Your task to perform on an android device: turn vacation reply on in the gmail app Image 0: 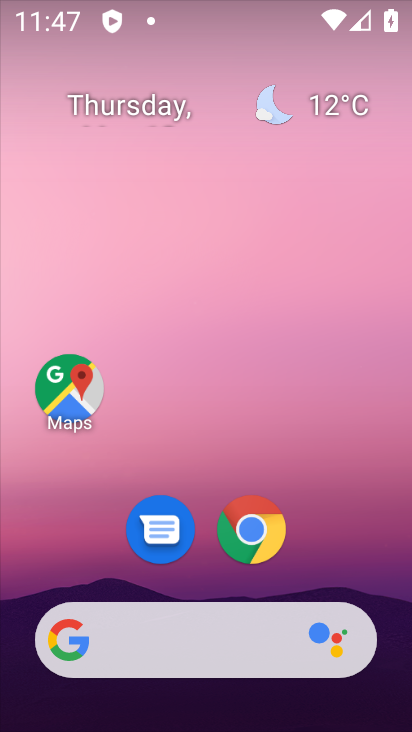
Step 0: drag from (311, 572) to (294, 251)
Your task to perform on an android device: turn vacation reply on in the gmail app Image 1: 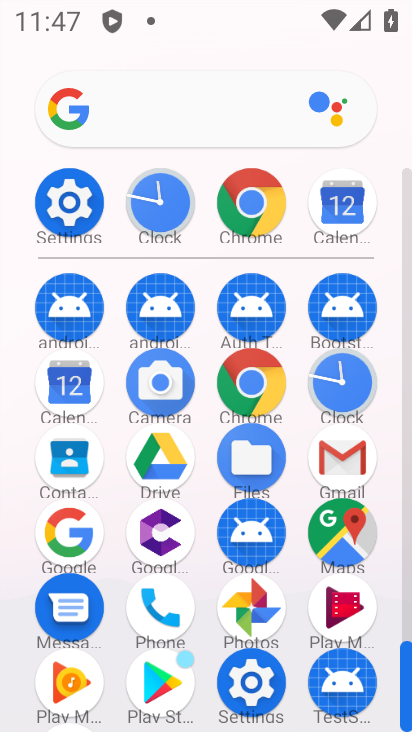
Step 1: click (341, 450)
Your task to perform on an android device: turn vacation reply on in the gmail app Image 2: 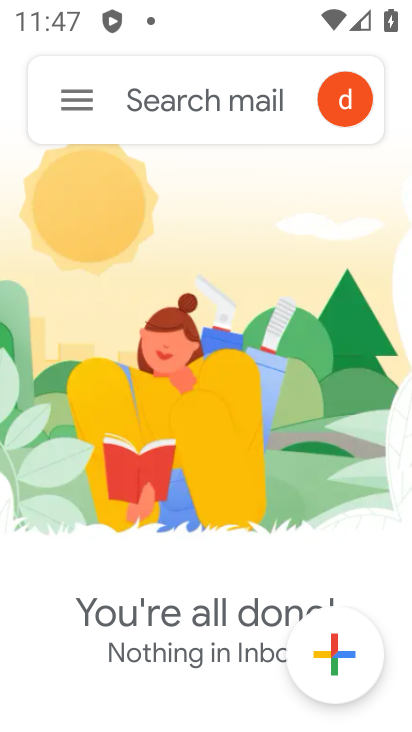
Step 2: click (75, 92)
Your task to perform on an android device: turn vacation reply on in the gmail app Image 3: 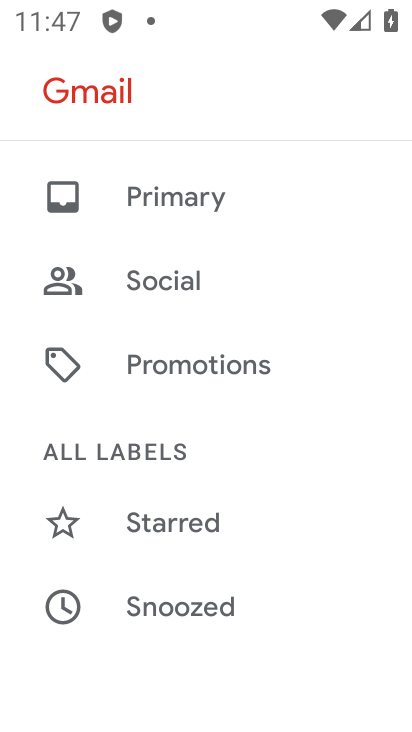
Step 3: drag from (190, 564) to (214, 256)
Your task to perform on an android device: turn vacation reply on in the gmail app Image 4: 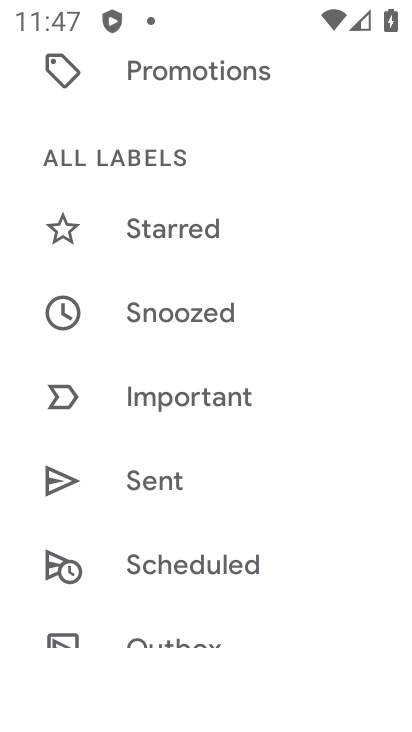
Step 4: drag from (240, 573) to (257, 217)
Your task to perform on an android device: turn vacation reply on in the gmail app Image 5: 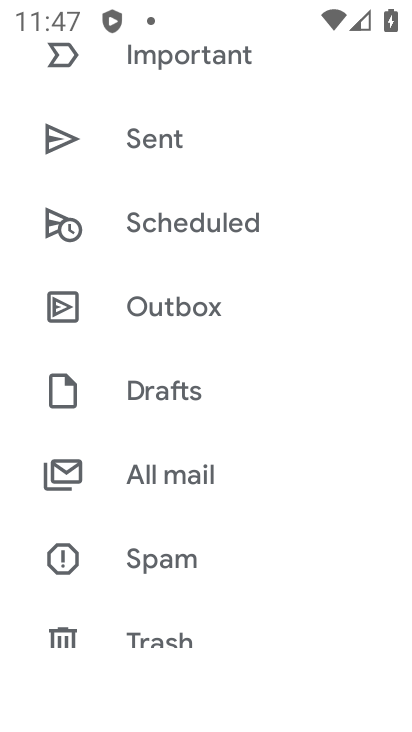
Step 5: drag from (216, 590) to (239, 180)
Your task to perform on an android device: turn vacation reply on in the gmail app Image 6: 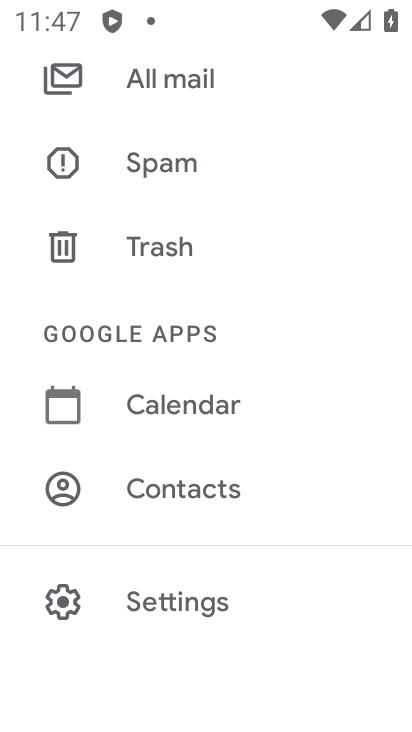
Step 6: drag from (191, 504) to (257, 152)
Your task to perform on an android device: turn vacation reply on in the gmail app Image 7: 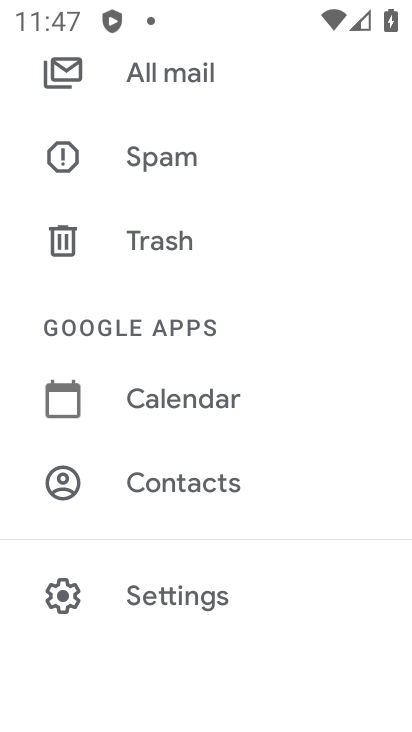
Step 7: drag from (224, 439) to (253, 168)
Your task to perform on an android device: turn vacation reply on in the gmail app Image 8: 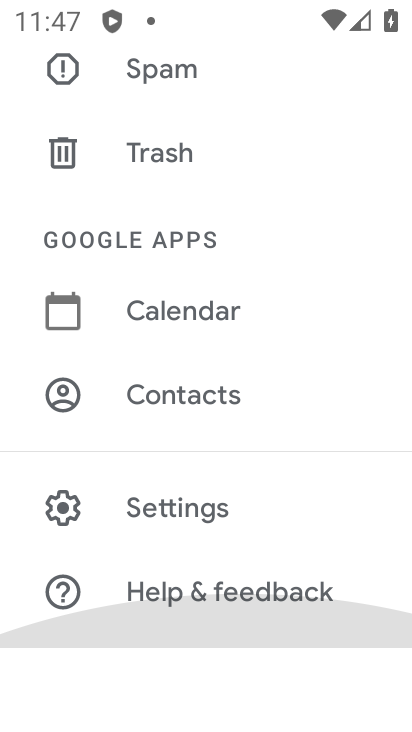
Step 8: drag from (193, 461) to (247, 80)
Your task to perform on an android device: turn vacation reply on in the gmail app Image 9: 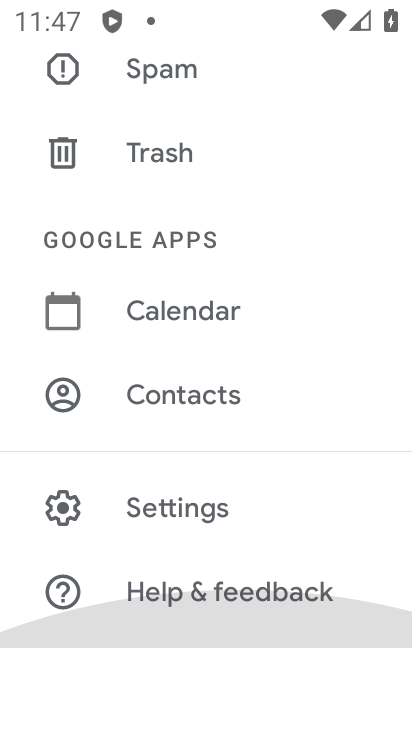
Step 9: drag from (190, 440) to (263, 135)
Your task to perform on an android device: turn vacation reply on in the gmail app Image 10: 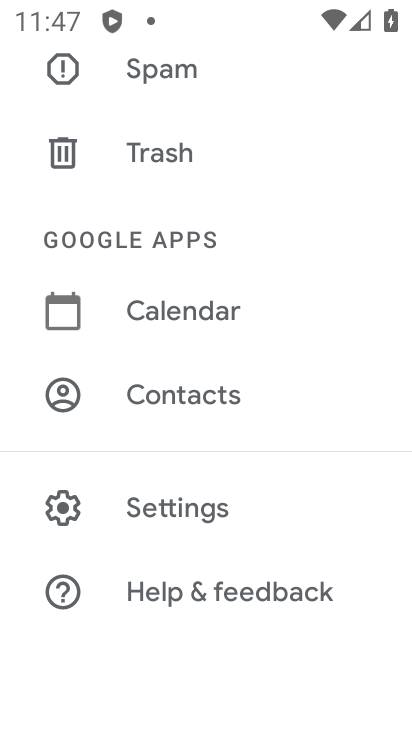
Step 10: click (183, 486)
Your task to perform on an android device: turn vacation reply on in the gmail app Image 11: 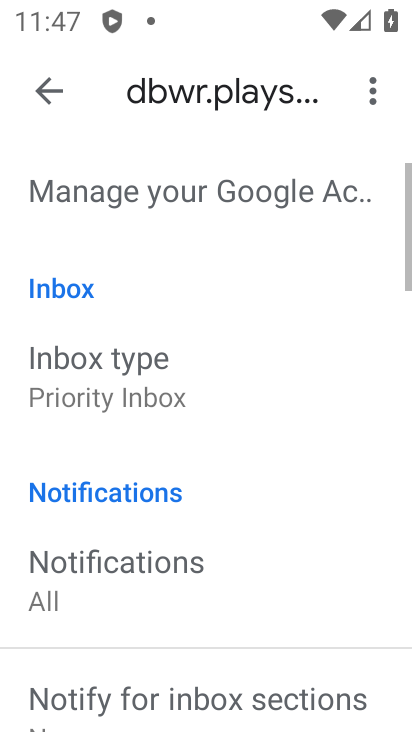
Step 11: drag from (216, 617) to (283, 229)
Your task to perform on an android device: turn vacation reply on in the gmail app Image 12: 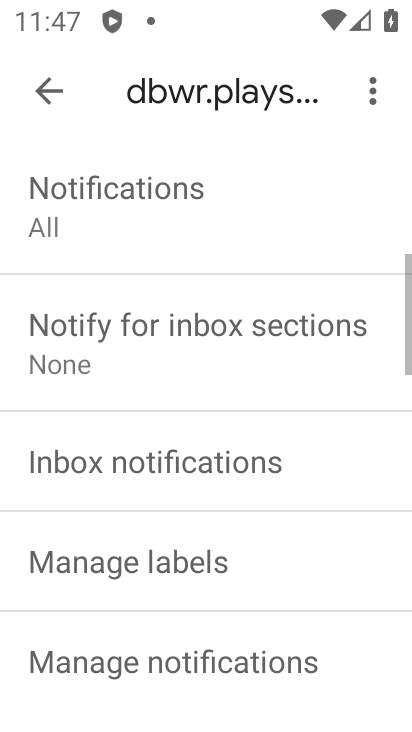
Step 12: drag from (311, 141) to (308, 52)
Your task to perform on an android device: turn vacation reply on in the gmail app Image 13: 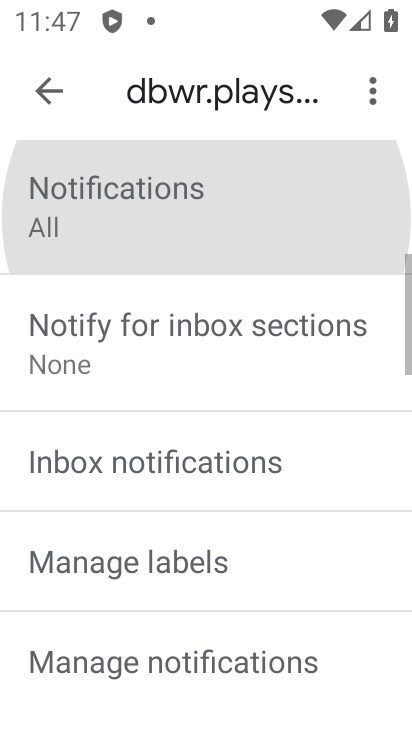
Step 13: drag from (228, 303) to (287, 141)
Your task to perform on an android device: turn vacation reply on in the gmail app Image 14: 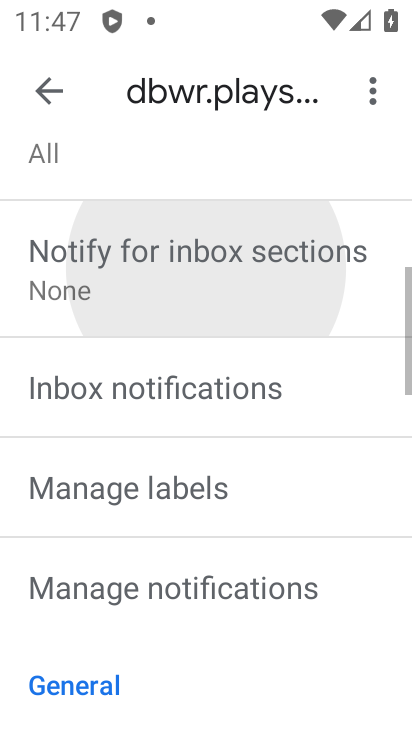
Step 14: drag from (216, 486) to (276, 269)
Your task to perform on an android device: turn vacation reply on in the gmail app Image 15: 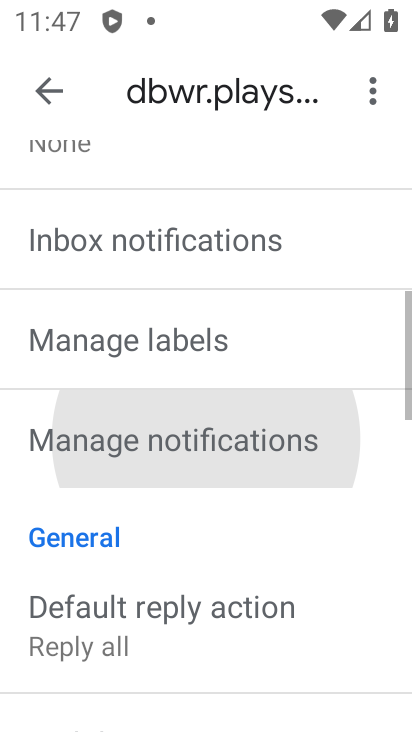
Step 15: drag from (164, 558) to (257, 201)
Your task to perform on an android device: turn vacation reply on in the gmail app Image 16: 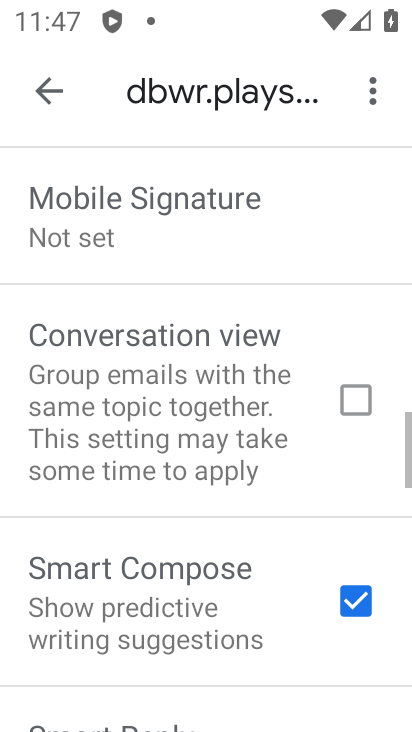
Step 16: drag from (166, 530) to (224, 256)
Your task to perform on an android device: turn vacation reply on in the gmail app Image 17: 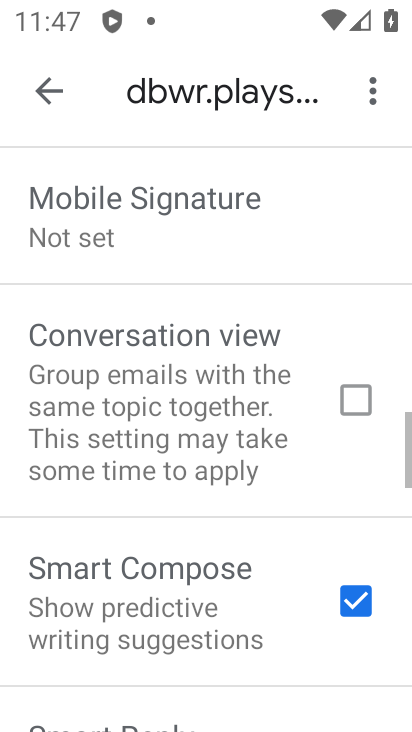
Step 17: drag from (150, 555) to (217, 273)
Your task to perform on an android device: turn vacation reply on in the gmail app Image 18: 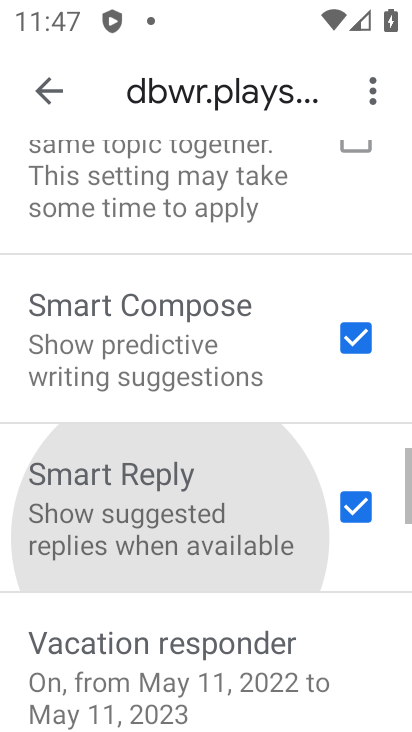
Step 18: drag from (156, 529) to (228, 219)
Your task to perform on an android device: turn vacation reply on in the gmail app Image 19: 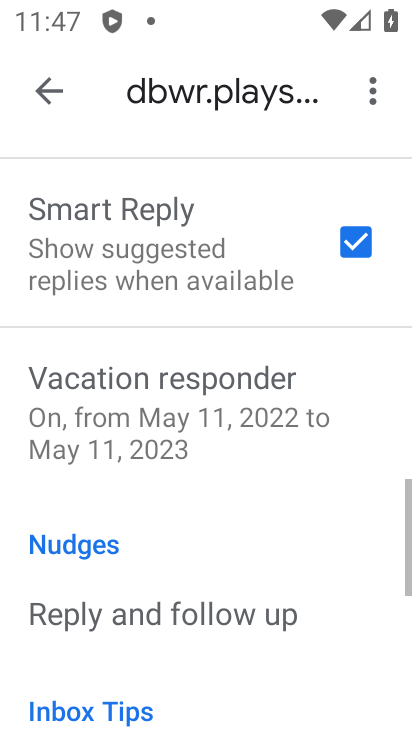
Step 19: drag from (110, 536) to (176, 301)
Your task to perform on an android device: turn vacation reply on in the gmail app Image 20: 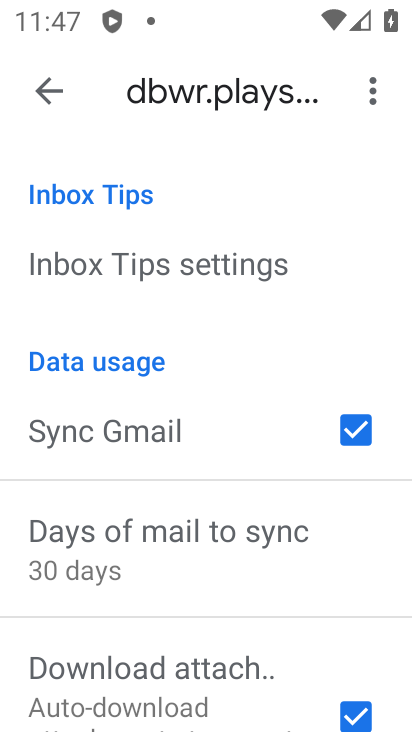
Step 20: drag from (101, 206) to (130, 487)
Your task to perform on an android device: turn vacation reply on in the gmail app Image 21: 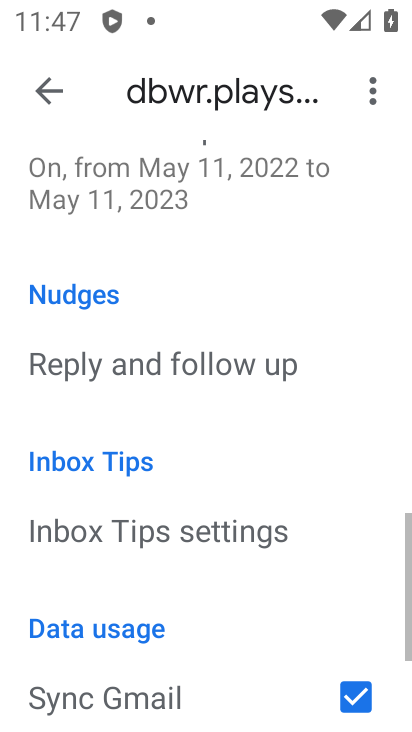
Step 21: drag from (155, 221) to (213, 558)
Your task to perform on an android device: turn vacation reply on in the gmail app Image 22: 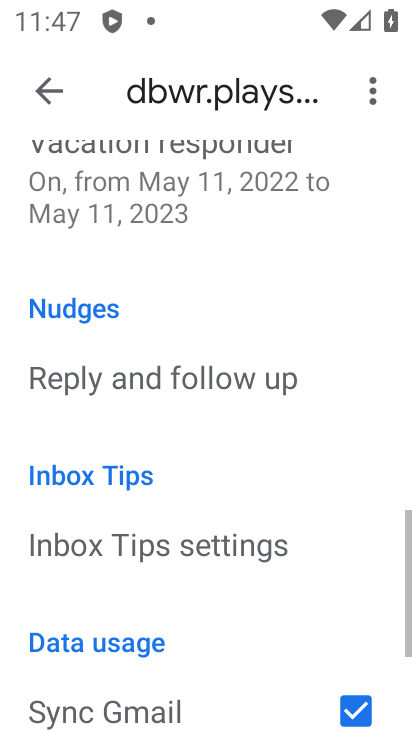
Step 22: drag from (192, 275) to (194, 494)
Your task to perform on an android device: turn vacation reply on in the gmail app Image 23: 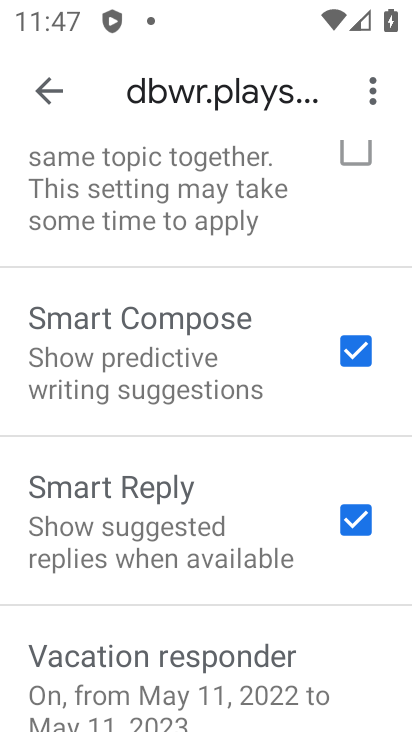
Step 23: click (174, 680)
Your task to perform on an android device: turn vacation reply on in the gmail app Image 24: 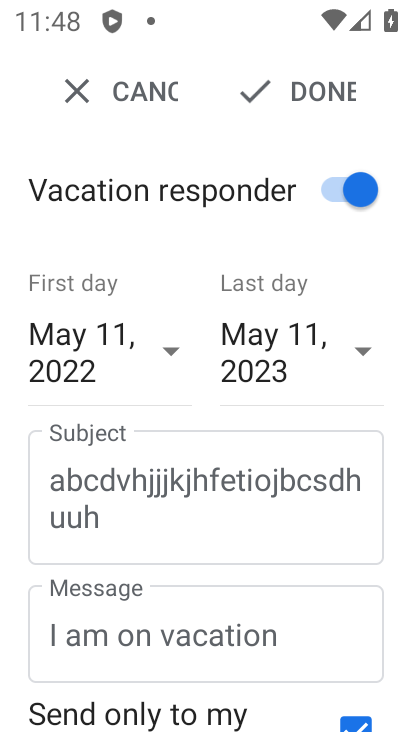
Step 24: click (264, 85)
Your task to perform on an android device: turn vacation reply on in the gmail app Image 25: 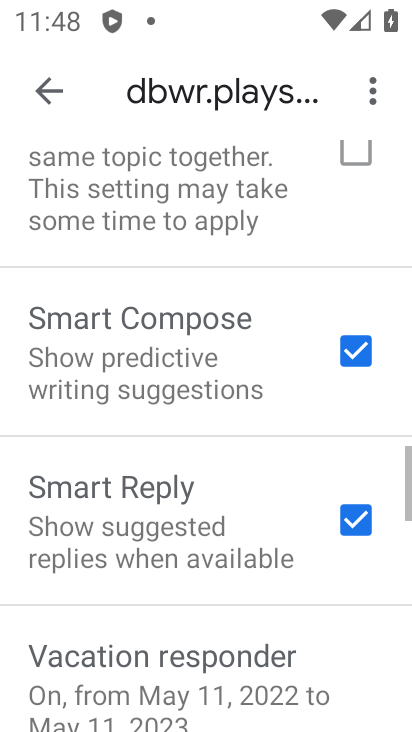
Step 25: task complete